Your task to perform on an android device: turn smart compose on in the gmail app Image 0: 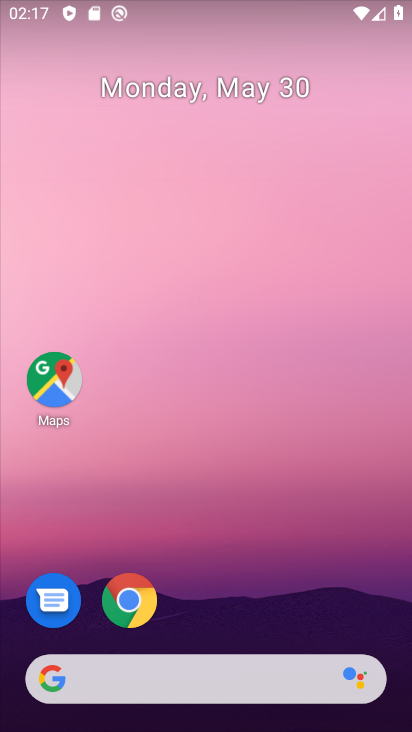
Step 0: drag from (281, 615) to (306, 46)
Your task to perform on an android device: turn smart compose on in the gmail app Image 1: 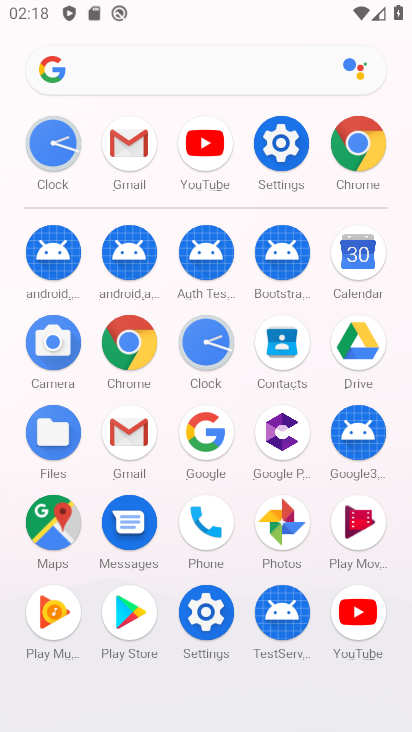
Step 1: click (142, 150)
Your task to perform on an android device: turn smart compose on in the gmail app Image 2: 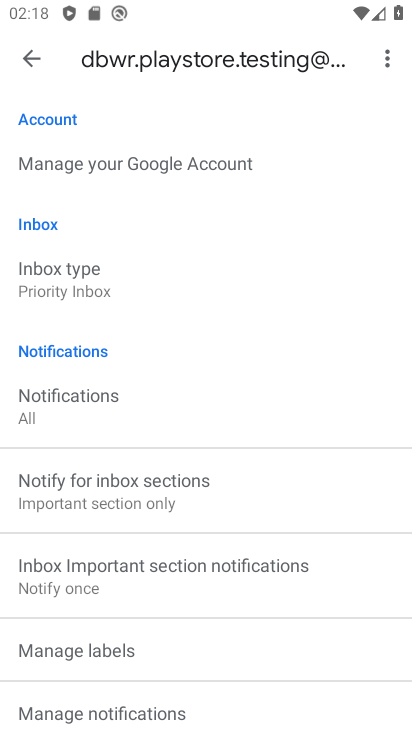
Step 2: task complete